Your task to perform on an android device: change notification settings in the gmail app Image 0: 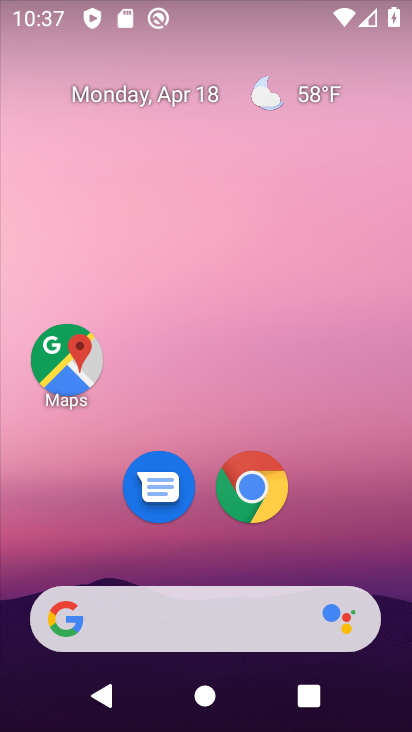
Step 0: drag from (350, 546) to (301, 127)
Your task to perform on an android device: change notification settings in the gmail app Image 1: 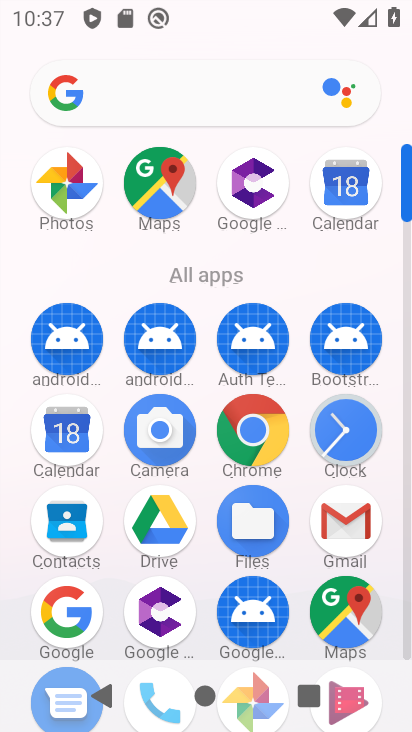
Step 1: click (353, 517)
Your task to perform on an android device: change notification settings in the gmail app Image 2: 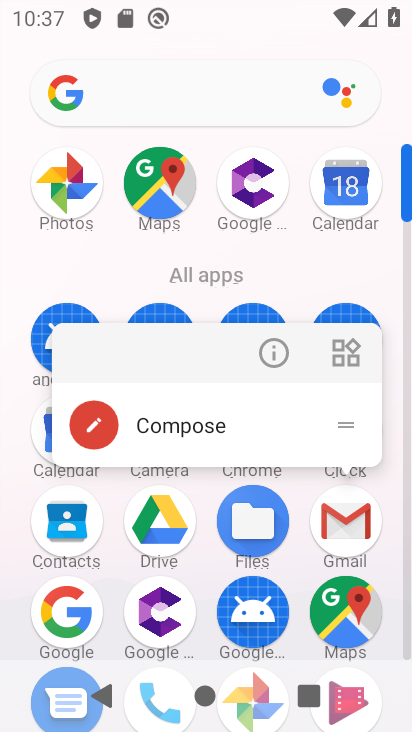
Step 2: click (277, 354)
Your task to perform on an android device: change notification settings in the gmail app Image 3: 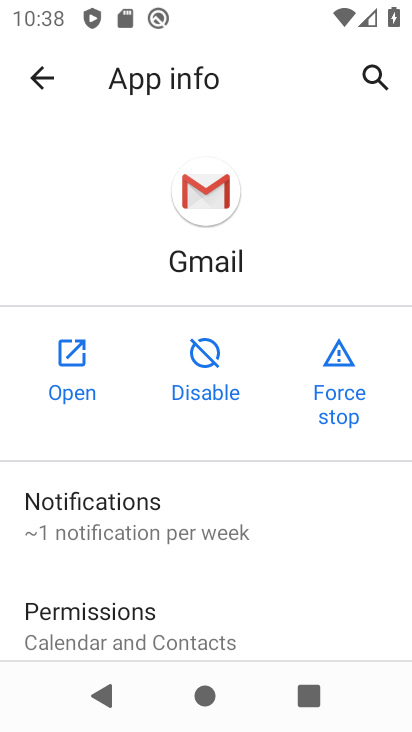
Step 3: click (226, 523)
Your task to perform on an android device: change notification settings in the gmail app Image 4: 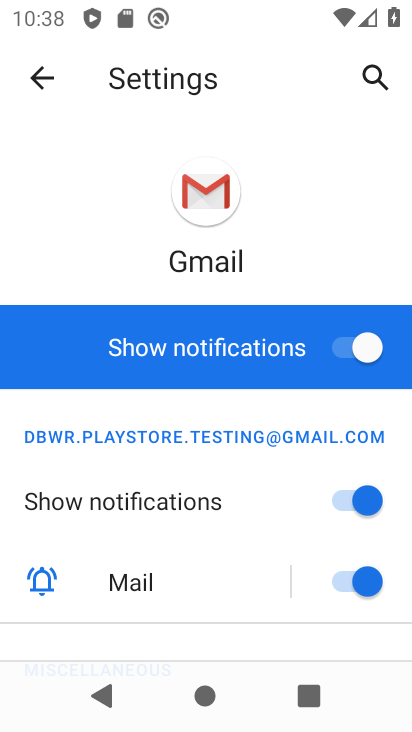
Step 4: click (351, 348)
Your task to perform on an android device: change notification settings in the gmail app Image 5: 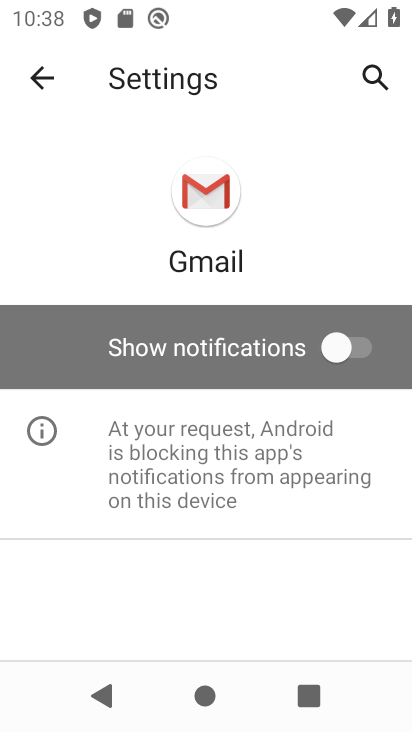
Step 5: task complete